Your task to perform on an android device: snooze an email in the gmail app Image 0: 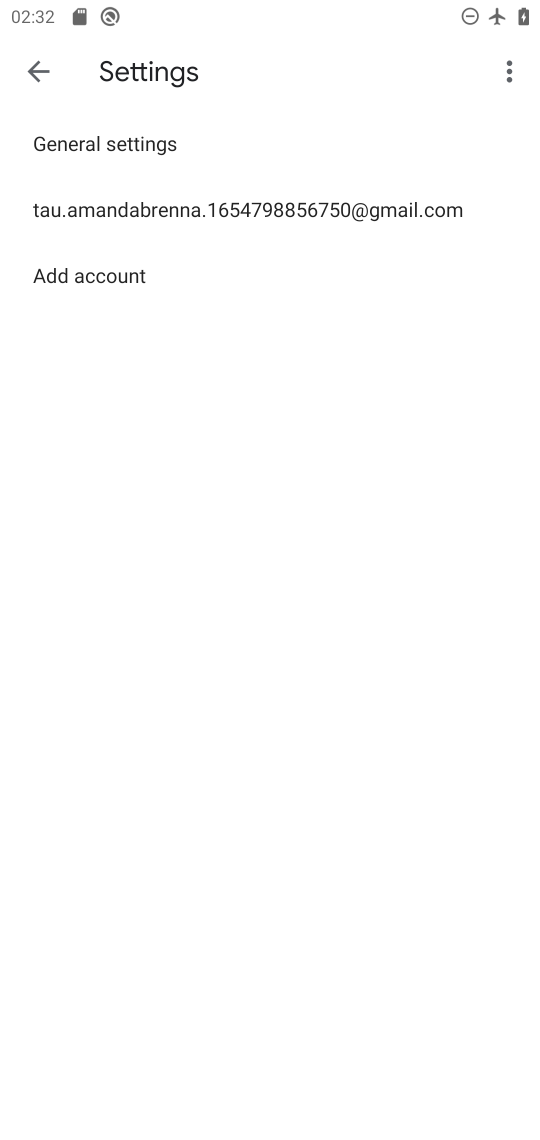
Step 0: press home button
Your task to perform on an android device: snooze an email in the gmail app Image 1: 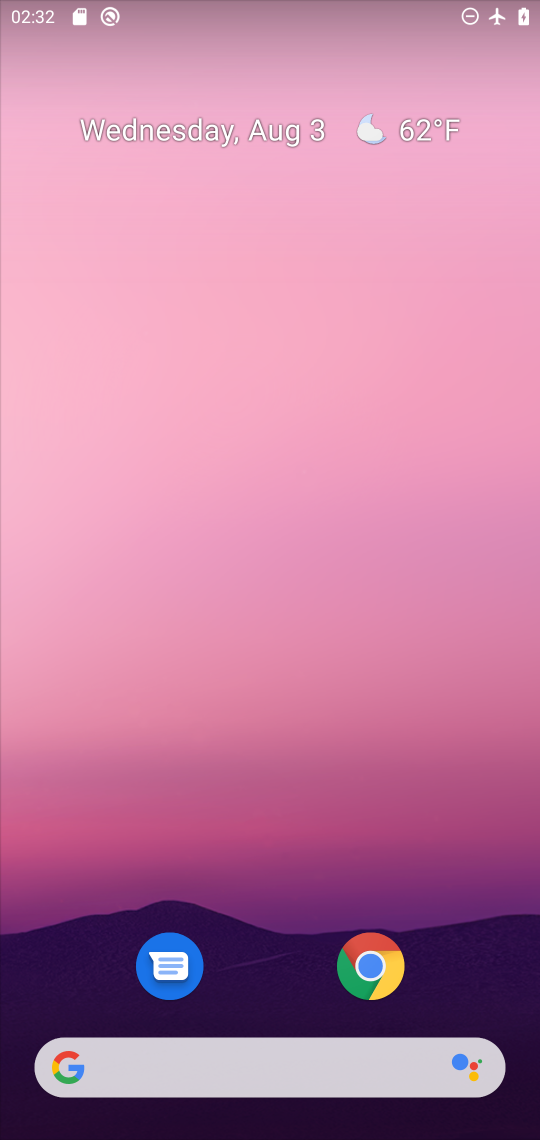
Step 1: drag from (270, 978) to (295, 401)
Your task to perform on an android device: snooze an email in the gmail app Image 2: 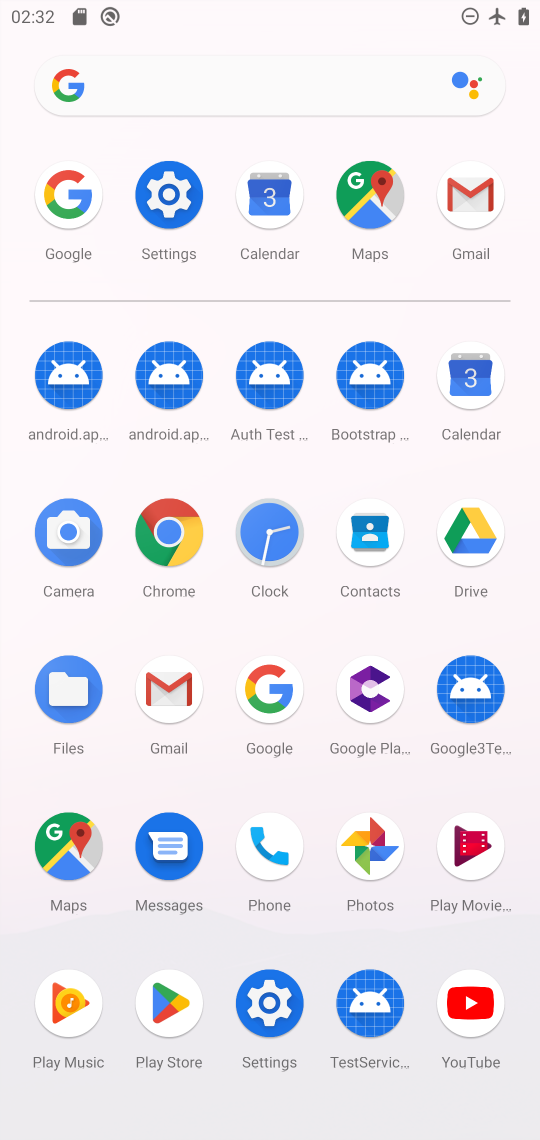
Step 2: click (464, 216)
Your task to perform on an android device: snooze an email in the gmail app Image 3: 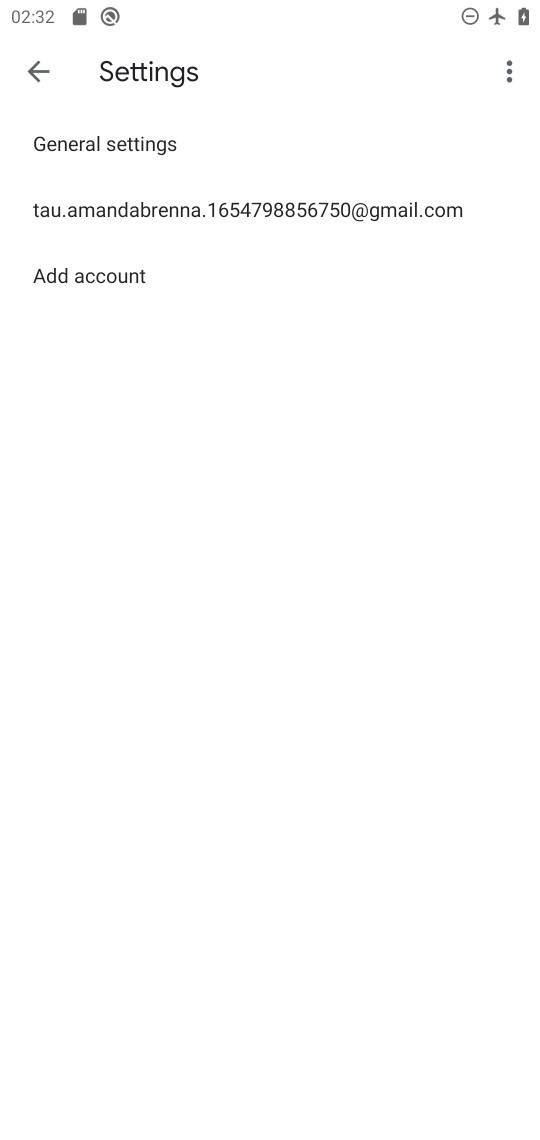
Step 3: click (42, 89)
Your task to perform on an android device: snooze an email in the gmail app Image 4: 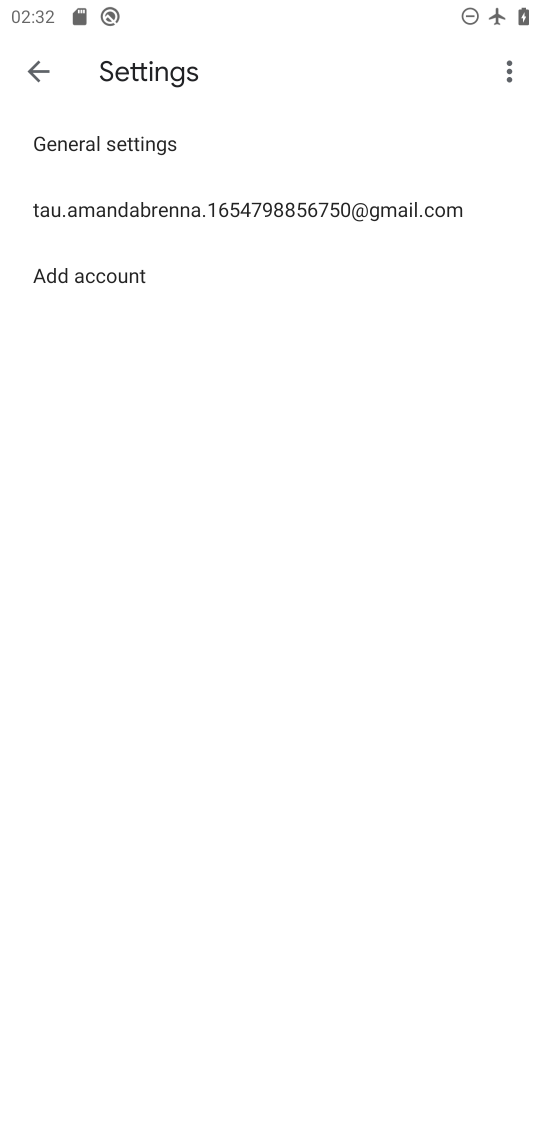
Step 4: click (43, 89)
Your task to perform on an android device: snooze an email in the gmail app Image 5: 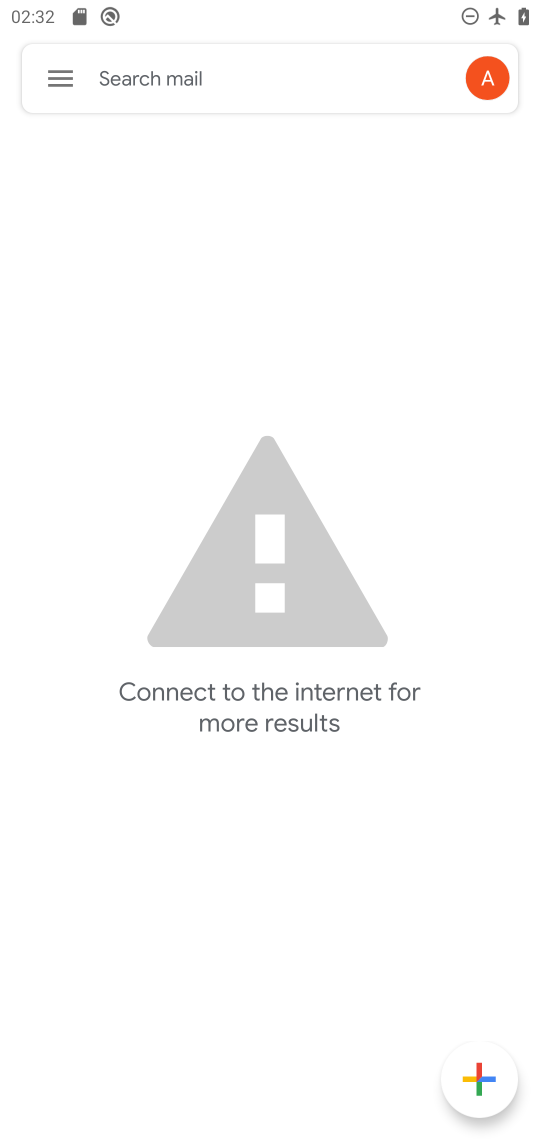
Step 5: click (67, 83)
Your task to perform on an android device: snooze an email in the gmail app Image 6: 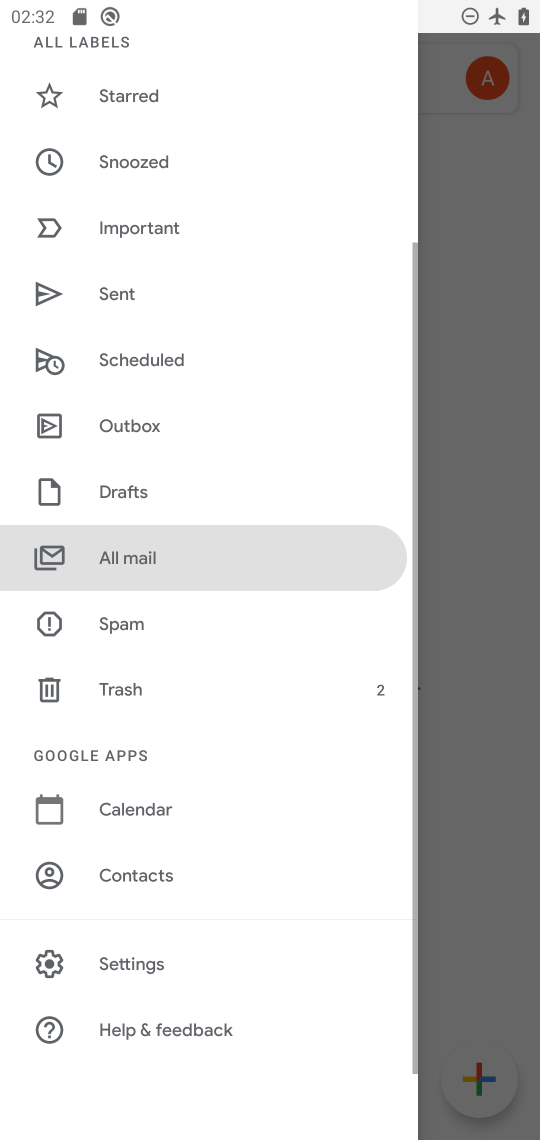
Step 6: click (168, 550)
Your task to perform on an android device: snooze an email in the gmail app Image 7: 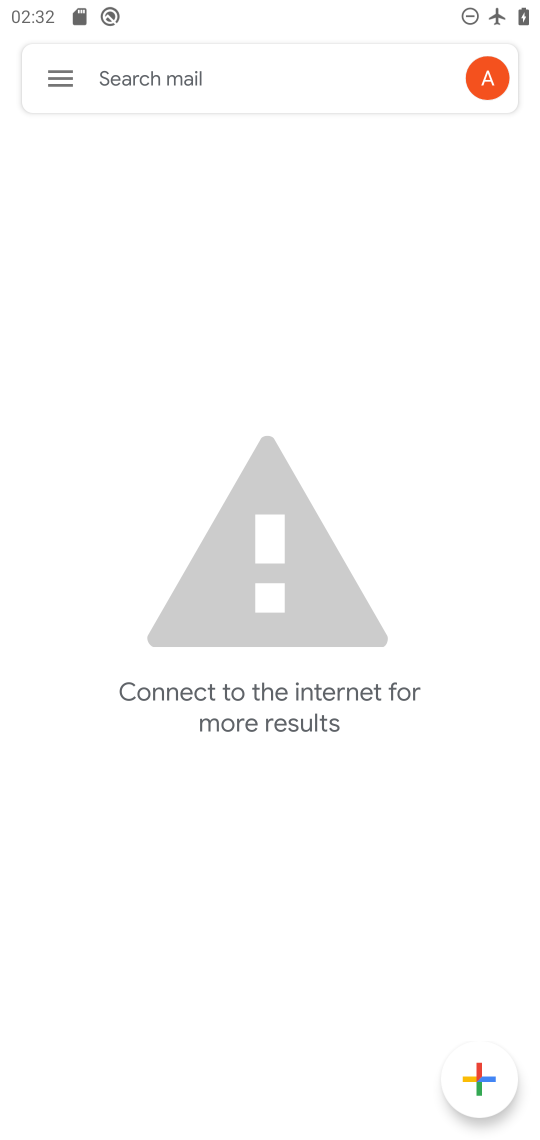
Step 7: task complete